Your task to perform on an android device: Add "apple airpods" to the cart on amazon Image 0: 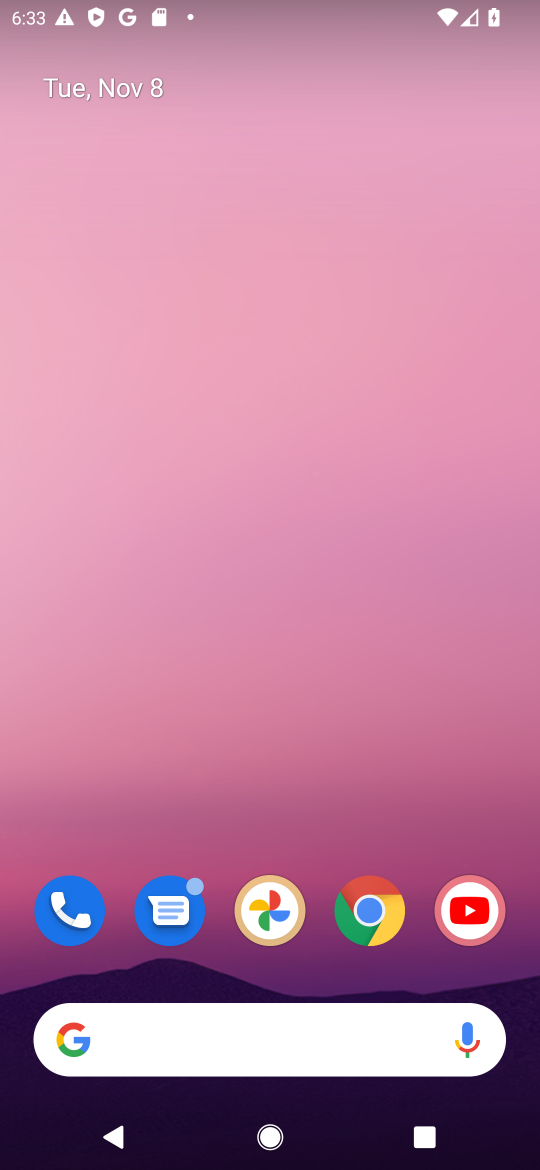
Step 0: click (367, 911)
Your task to perform on an android device: Add "apple airpods" to the cart on amazon Image 1: 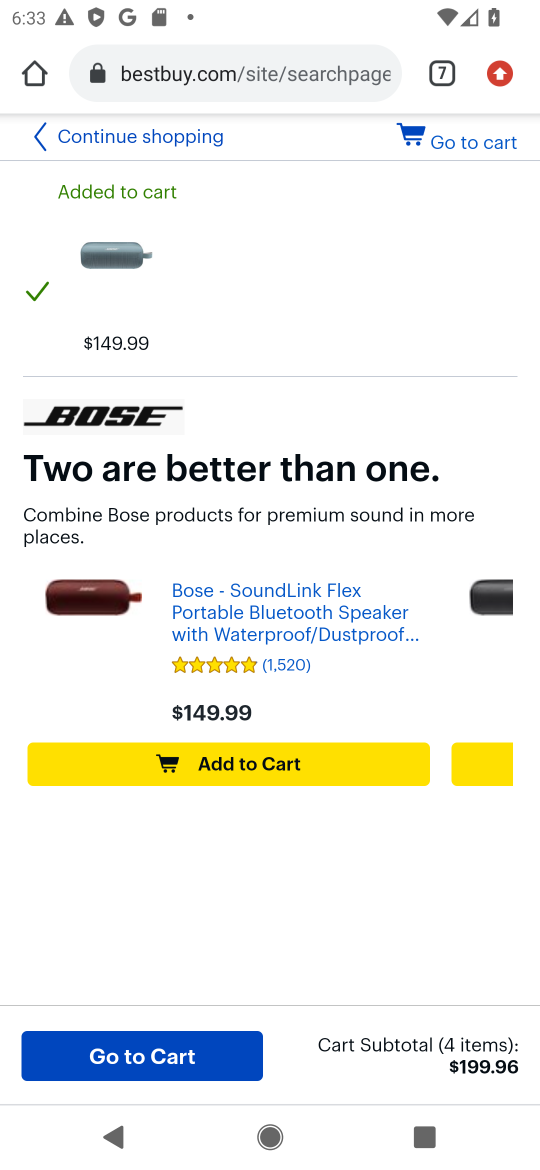
Step 1: click (442, 70)
Your task to perform on an android device: Add "apple airpods" to the cart on amazon Image 2: 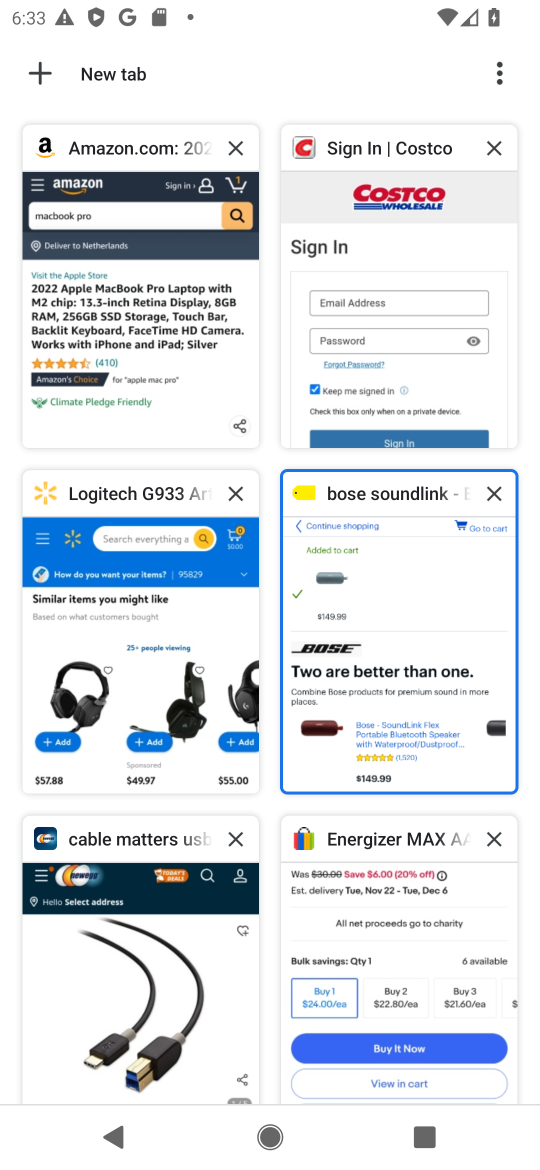
Step 2: click (176, 306)
Your task to perform on an android device: Add "apple airpods" to the cart on amazon Image 3: 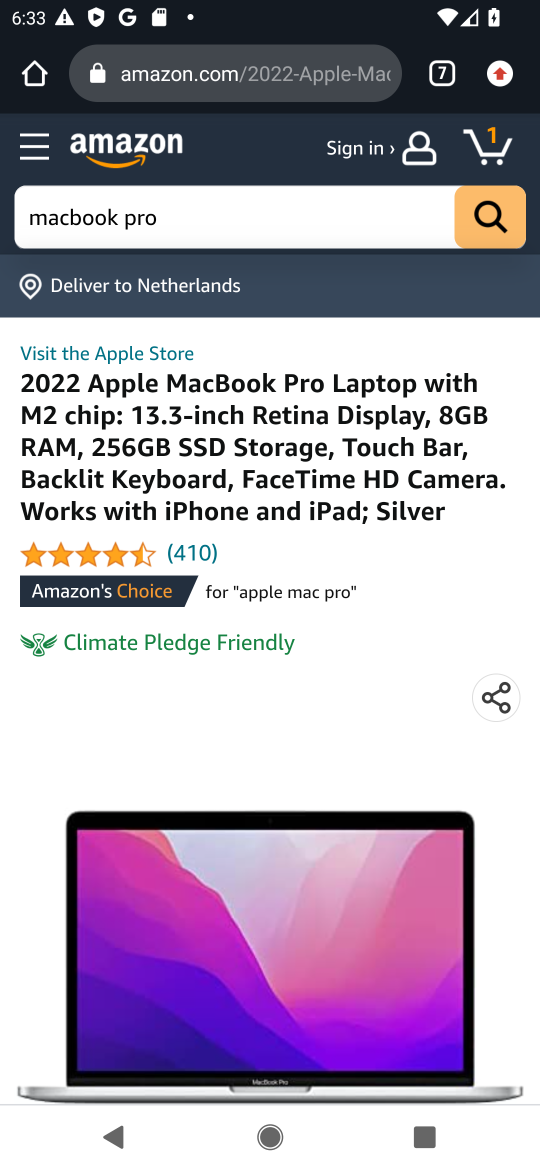
Step 3: click (291, 235)
Your task to perform on an android device: Add "apple airpods" to the cart on amazon Image 4: 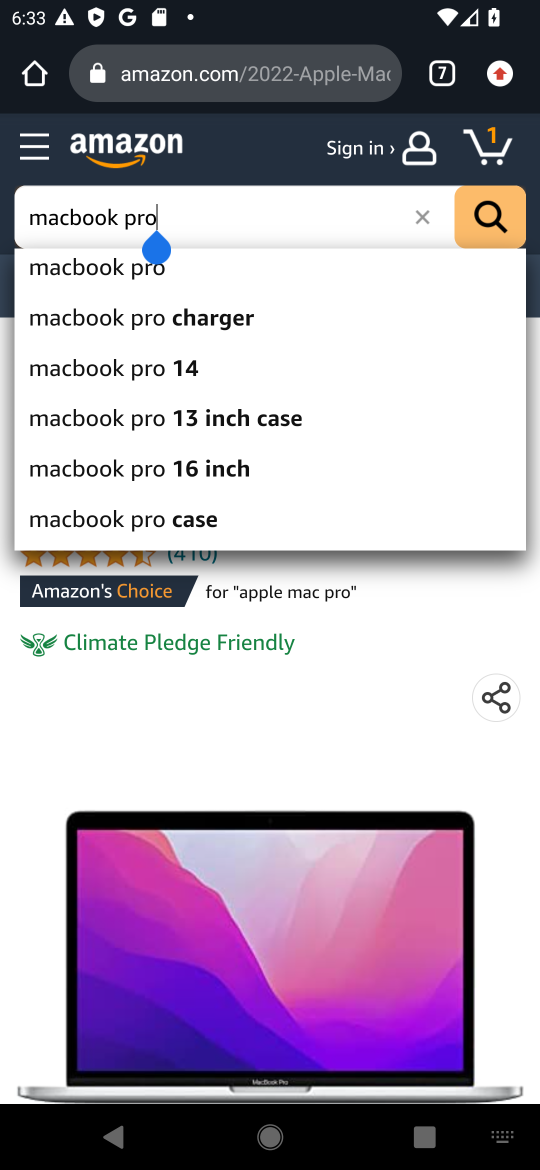
Step 4: click (420, 213)
Your task to perform on an android device: Add "apple airpods" to the cart on amazon Image 5: 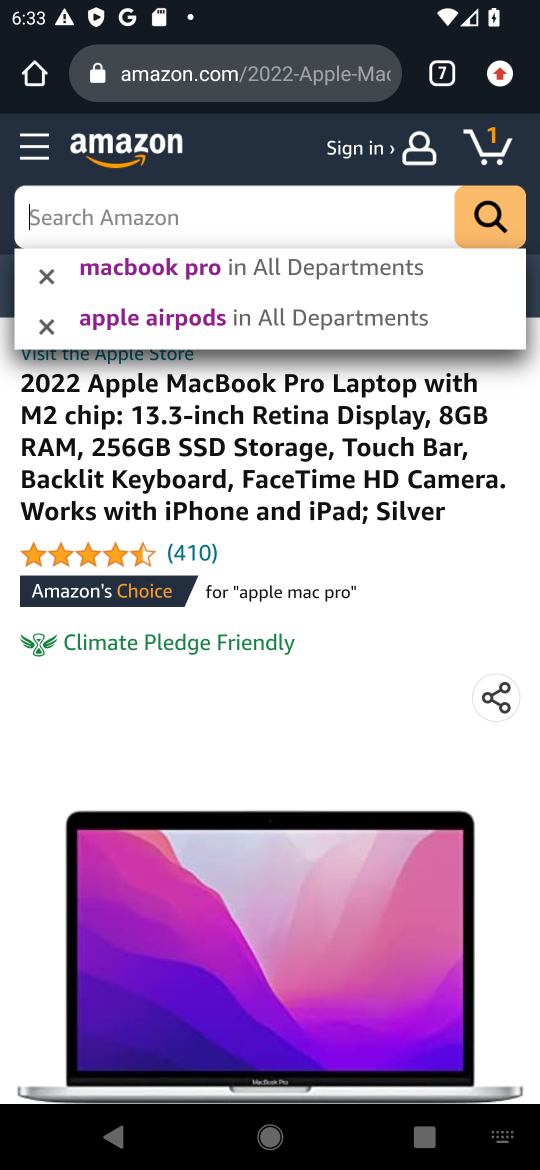
Step 5: type "apple airpods"
Your task to perform on an android device: Add "apple airpods" to the cart on amazon Image 6: 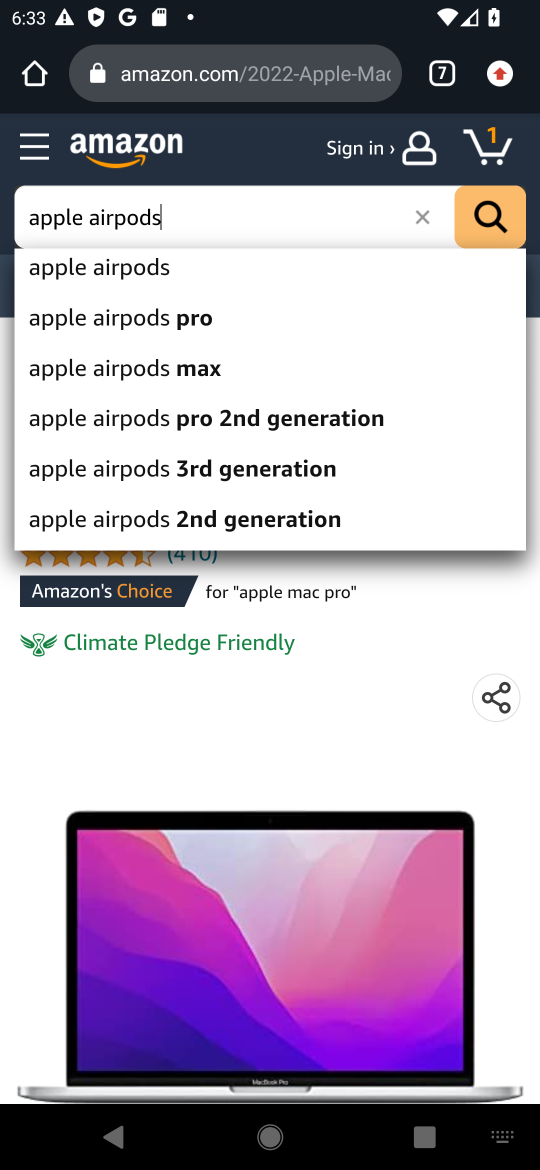
Step 6: click (494, 216)
Your task to perform on an android device: Add "apple airpods" to the cart on amazon Image 7: 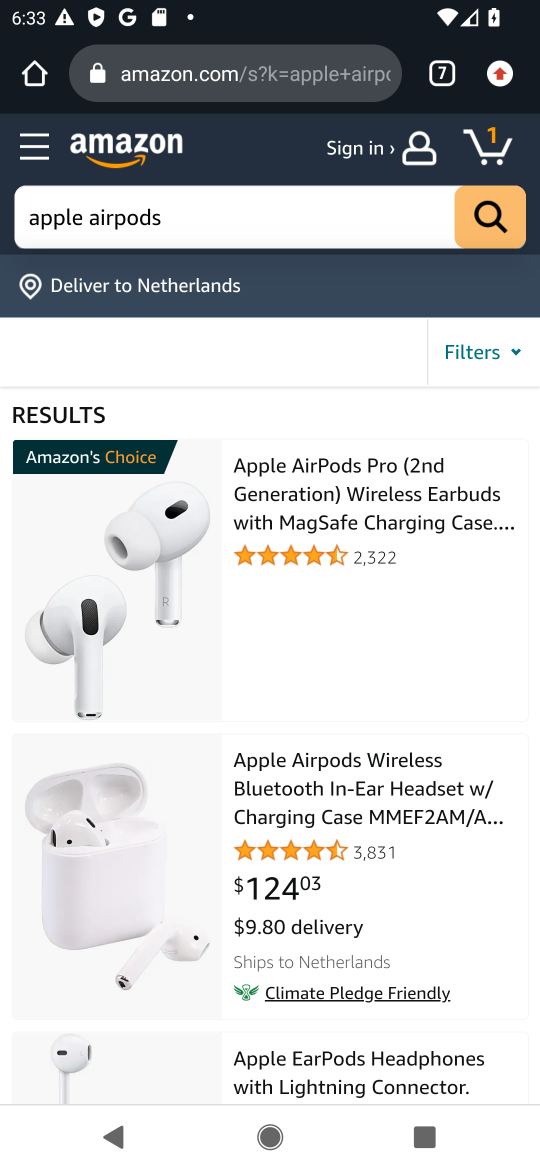
Step 7: click (344, 499)
Your task to perform on an android device: Add "apple airpods" to the cart on amazon Image 8: 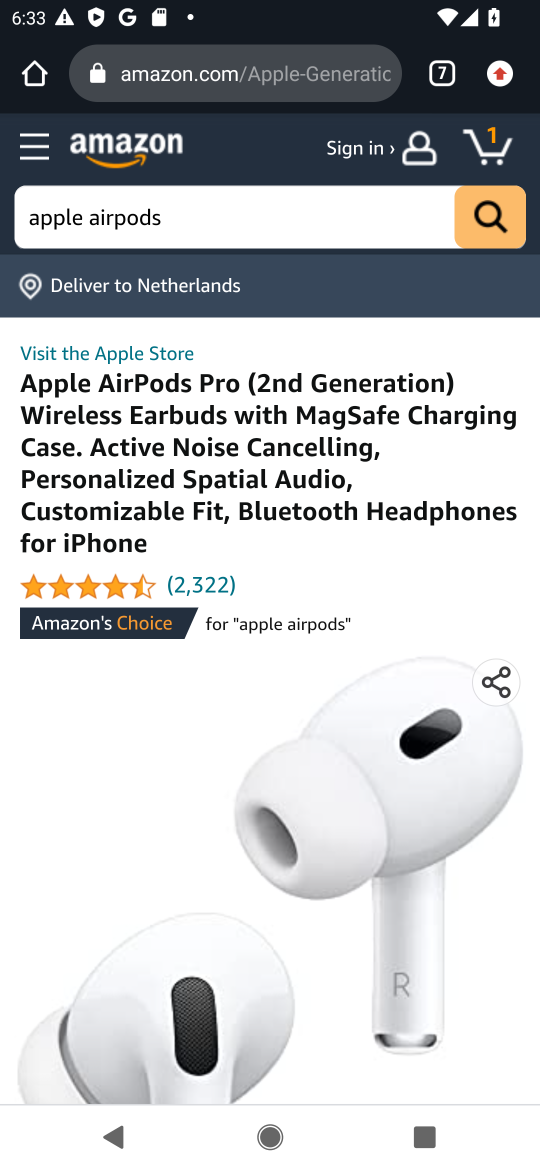
Step 8: drag from (220, 942) to (301, 396)
Your task to perform on an android device: Add "apple airpods" to the cart on amazon Image 9: 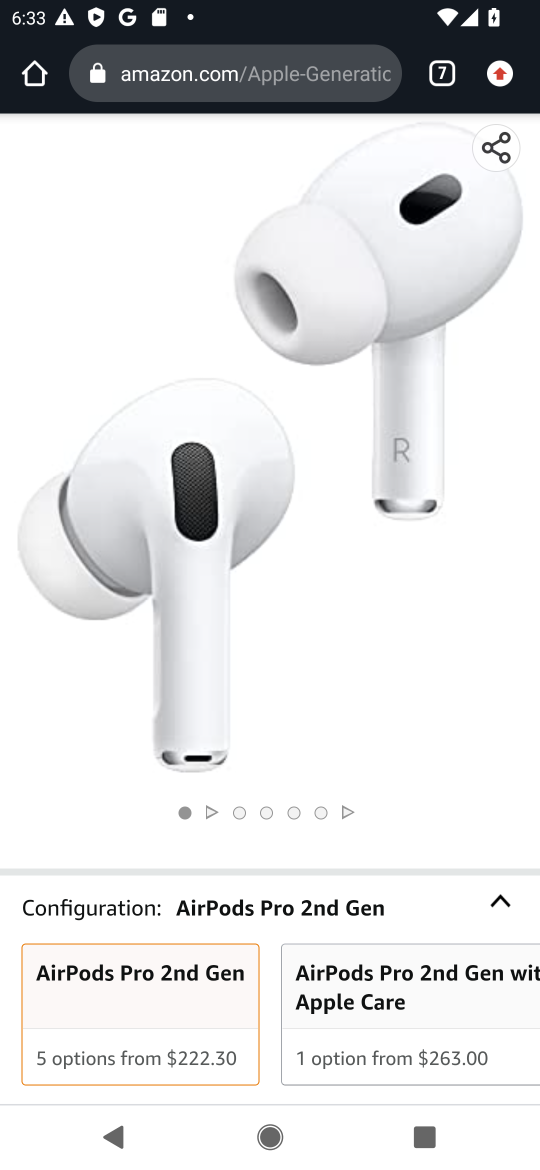
Step 9: drag from (312, 906) to (372, 392)
Your task to perform on an android device: Add "apple airpods" to the cart on amazon Image 10: 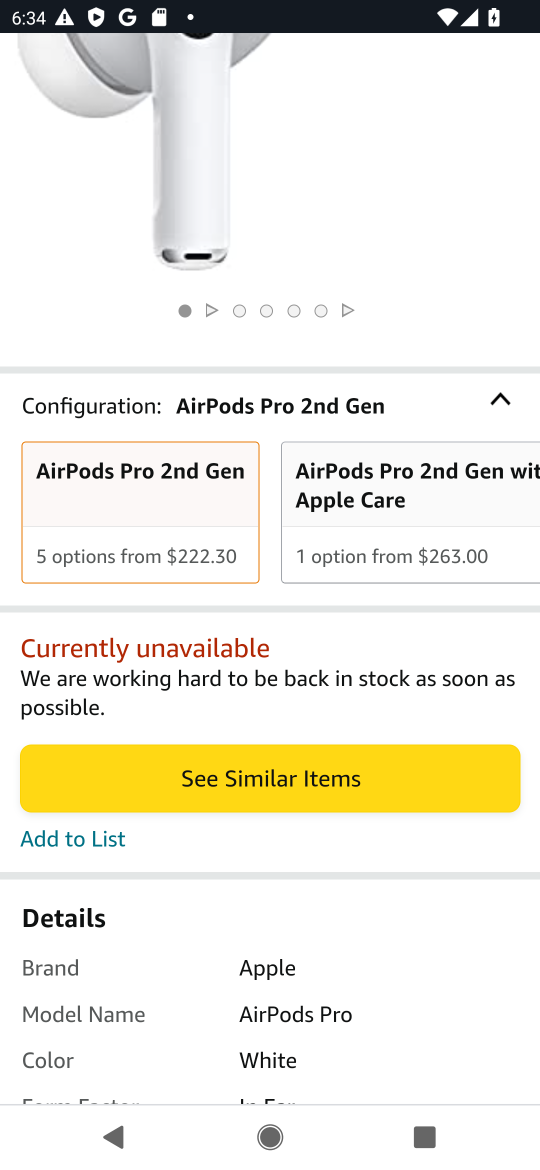
Step 10: click (357, 285)
Your task to perform on an android device: Add "apple airpods" to the cart on amazon Image 11: 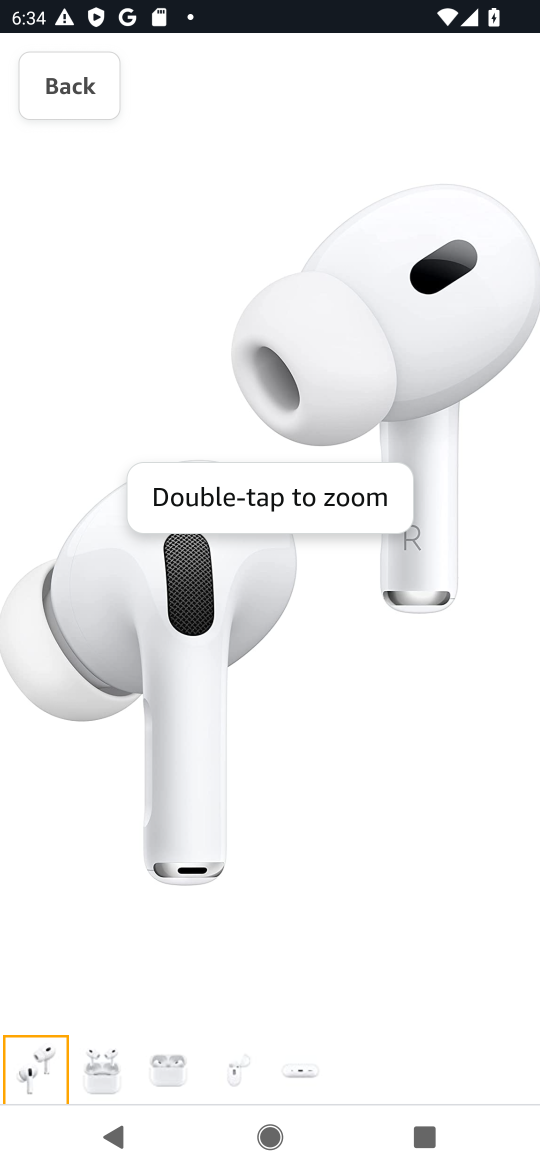
Step 11: click (194, 791)
Your task to perform on an android device: Add "apple airpods" to the cart on amazon Image 12: 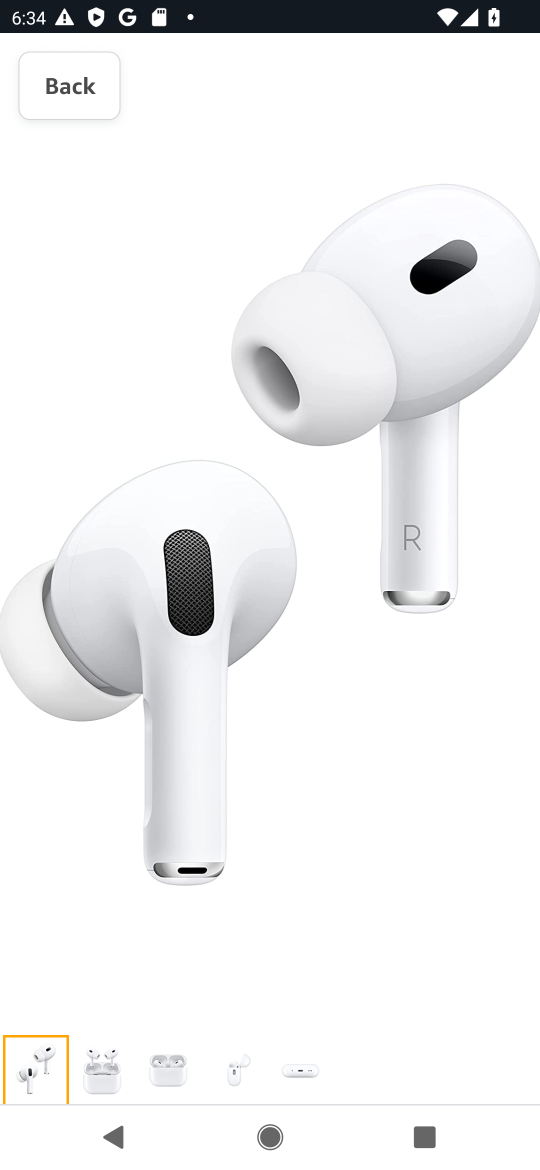
Step 12: click (73, 96)
Your task to perform on an android device: Add "apple airpods" to the cart on amazon Image 13: 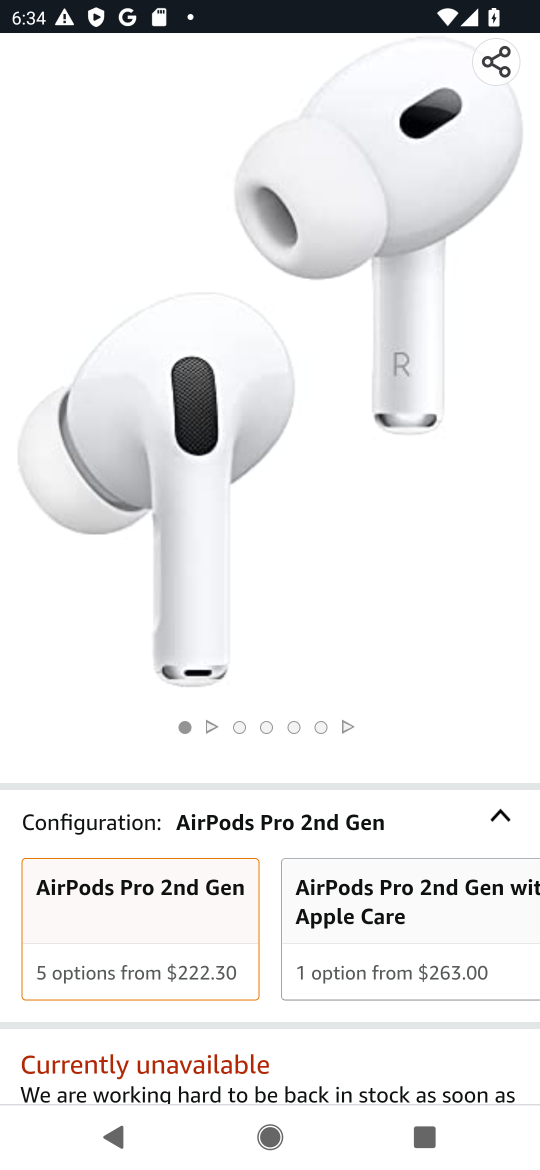
Step 13: drag from (124, 736) to (229, 133)
Your task to perform on an android device: Add "apple airpods" to the cart on amazon Image 14: 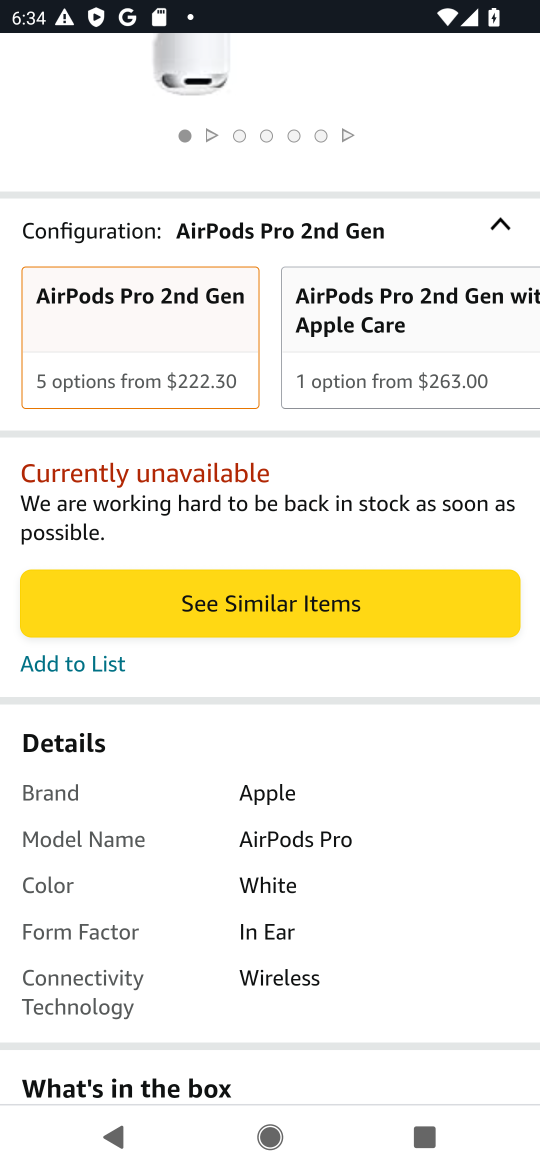
Step 14: click (251, 604)
Your task to perform on an android device: Add "apple airpods" to the cart on amazon Image 15: 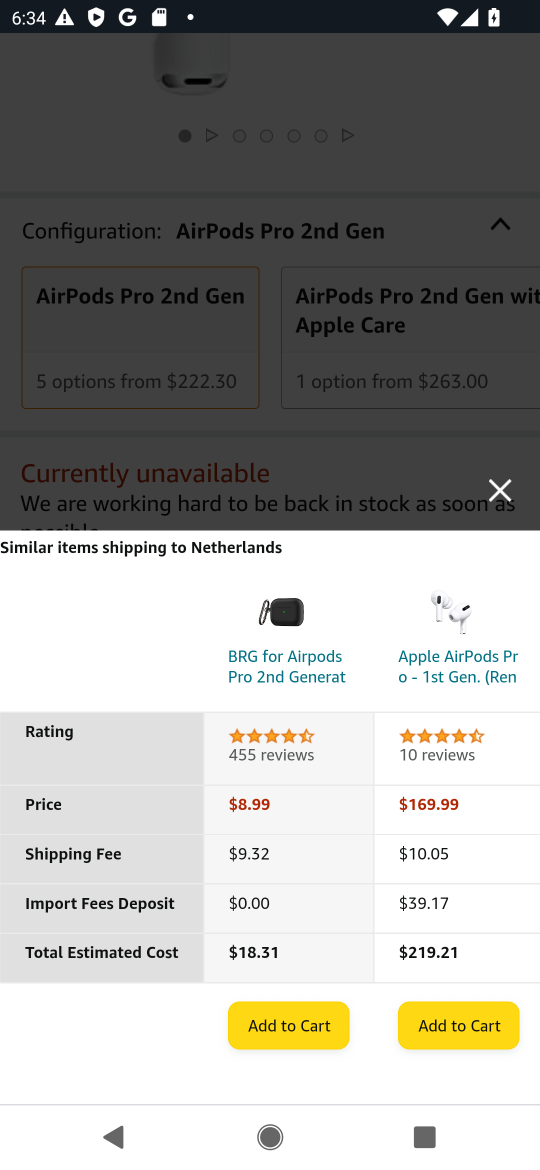
Step 15: click (451, 1017)
Your task to perform on an android device: Add "apple airpods" to the cart on amazon Image 16: 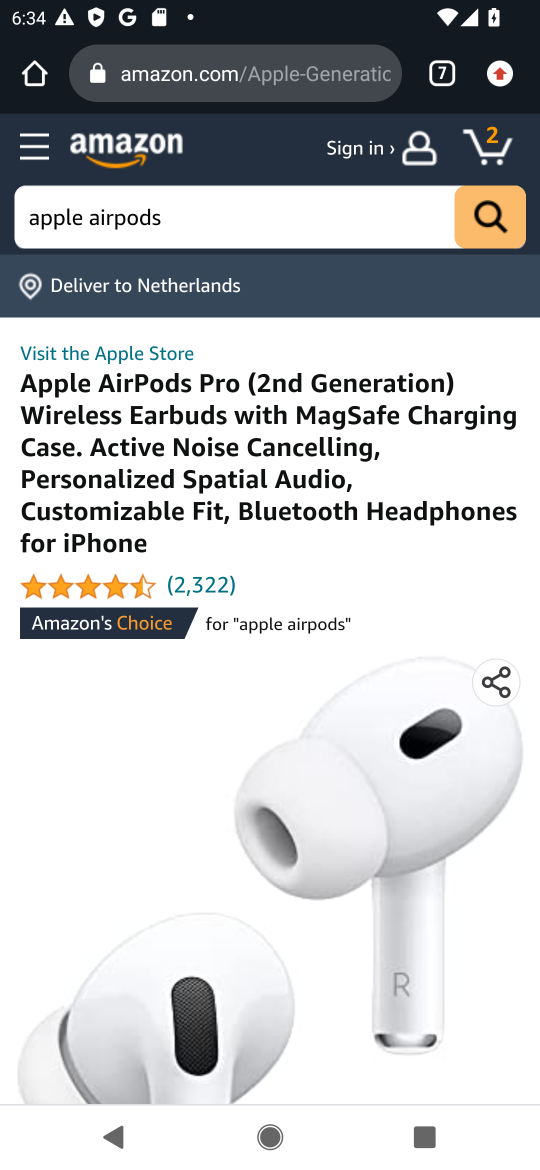
Step 16: task complete